Your task to perform on an android device: turn on the 24-hour format for clock Image 0: 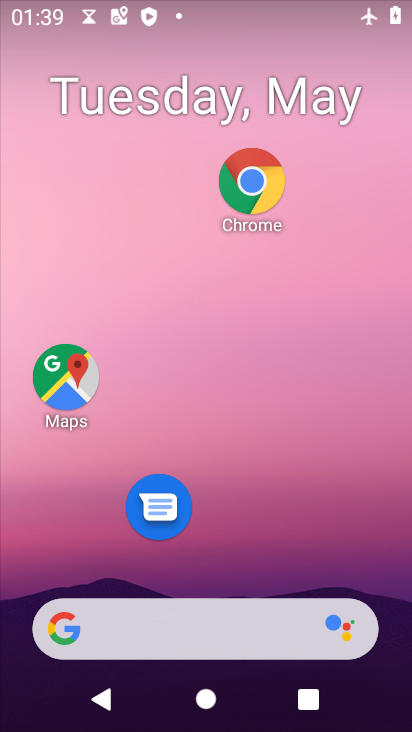
Step 0: drag from (254, 556) to (292, 316)
Your task to perform on an android device: turn on the 24-hour format for clock Image 1: 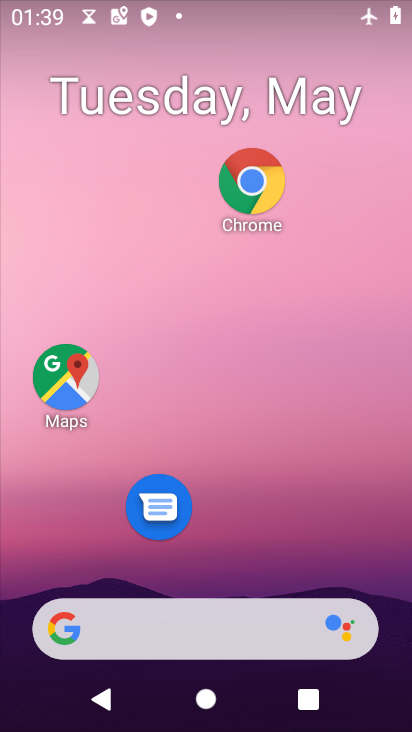
Step 1: drag from (274, 575) to (286, 283)
Your task to perform on an android device: turn on the 24-hour format for clock Image 2: 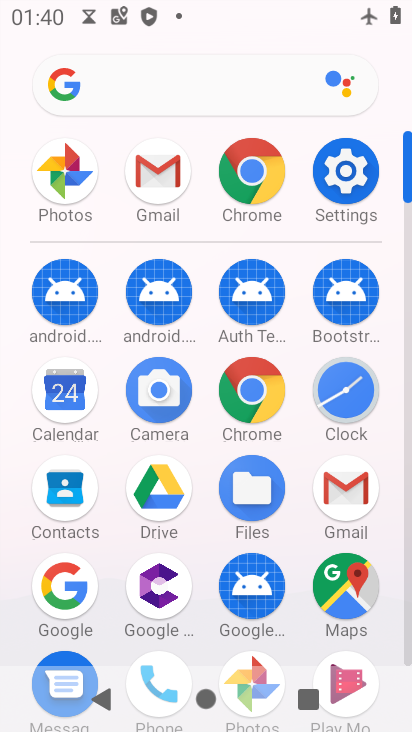
Step 2: click (344, 382)
Your task to perform on an android device: turn on the 24-hour format for clock Image 3: 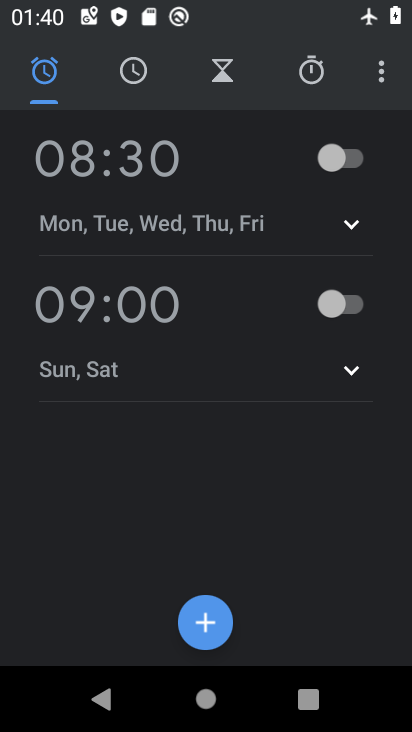
Step 3: click (372, 76)
Your task to perform on an android device: turn on the 24-hour format for clock Image 4: 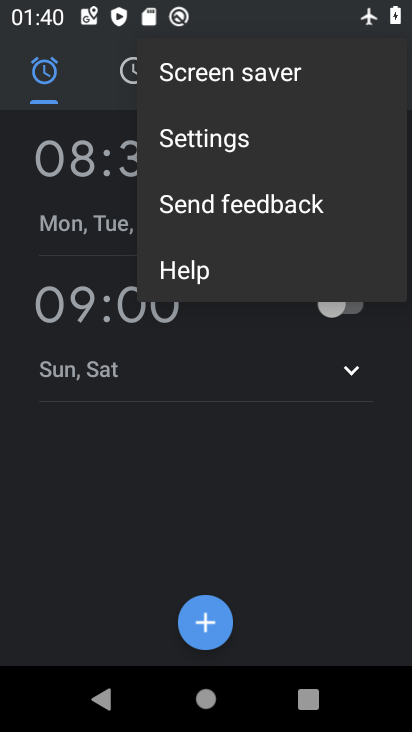
Step 4: click (283, 143)
Your task to perform on an android device: turn on the 24-hour format for clock Image 5: 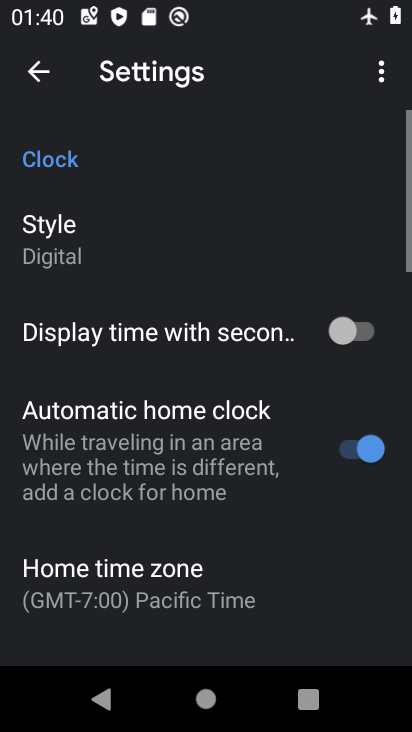
Step 5: drag from (257, 423) to (283, 208)
Your task to perform on an android device: turn on the 24-hour format for clock Image 6: 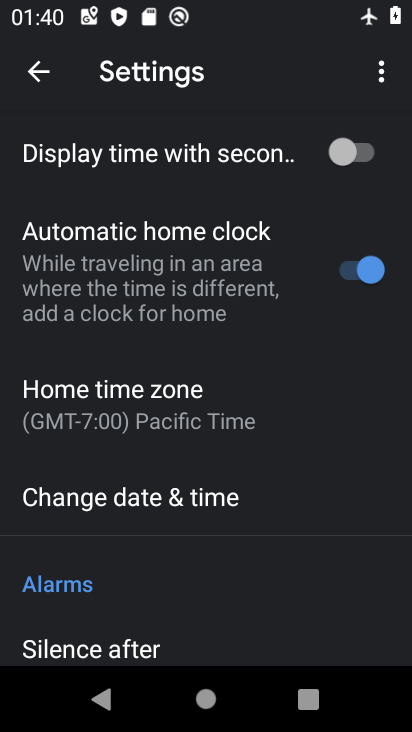
Step 6: click (163, 495)
Your task to perform on an android device: turn on the 24-hour format for clock Image 7: 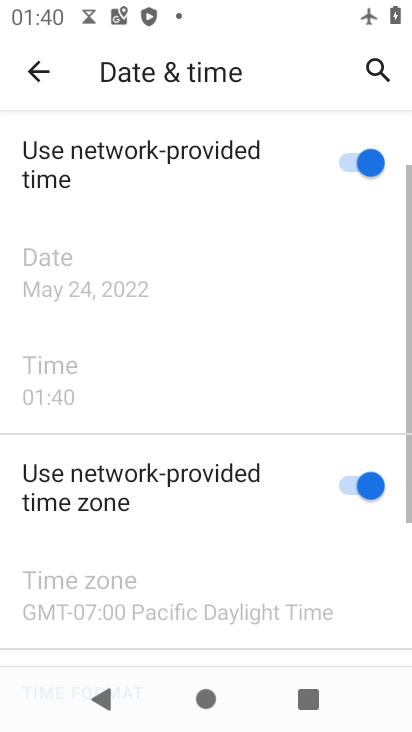
Step 7: task complete